Your task to perform on an android device: Search for the best rated drill on Lowes.com Image 0: 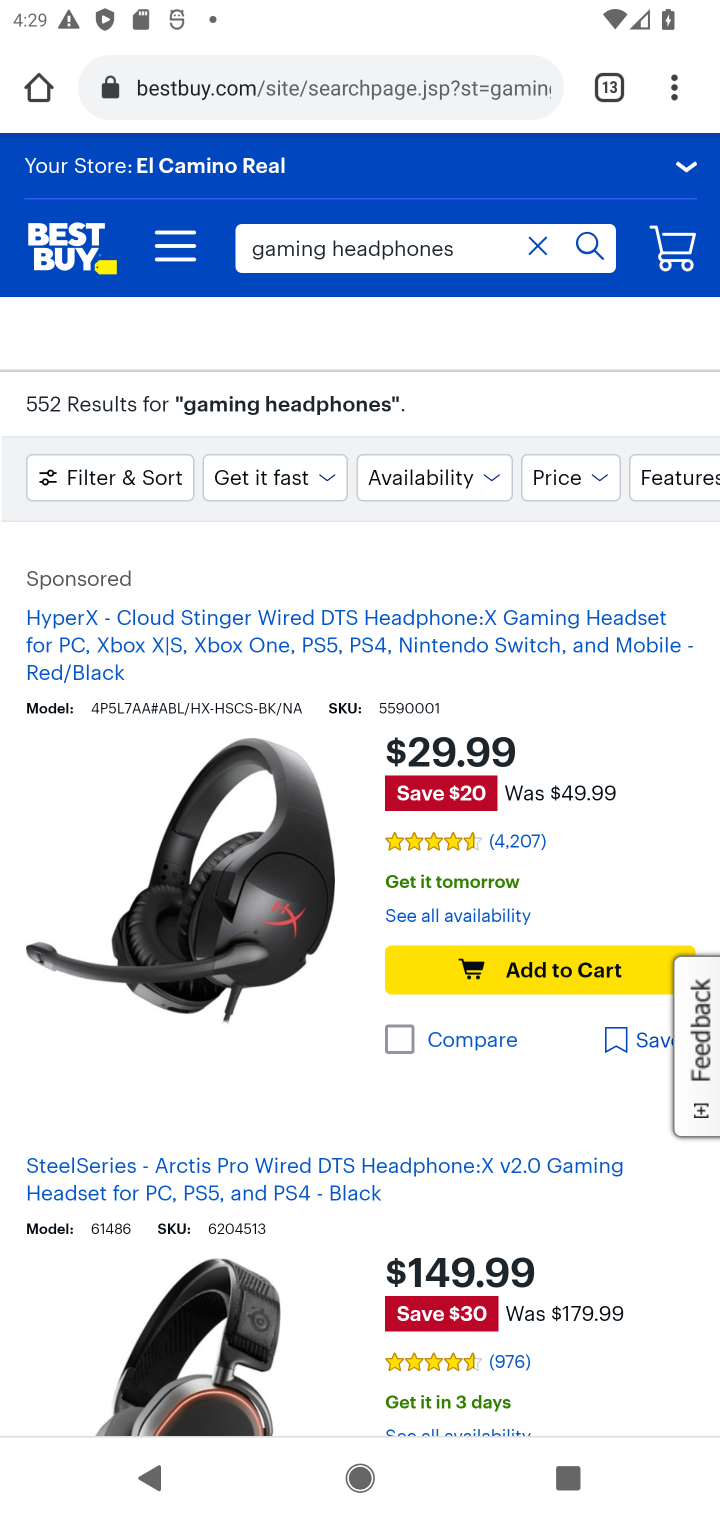
Step 0: press home button
Your task to perform on an android device: Search for the best rated drill on Lowes.com Image 1: 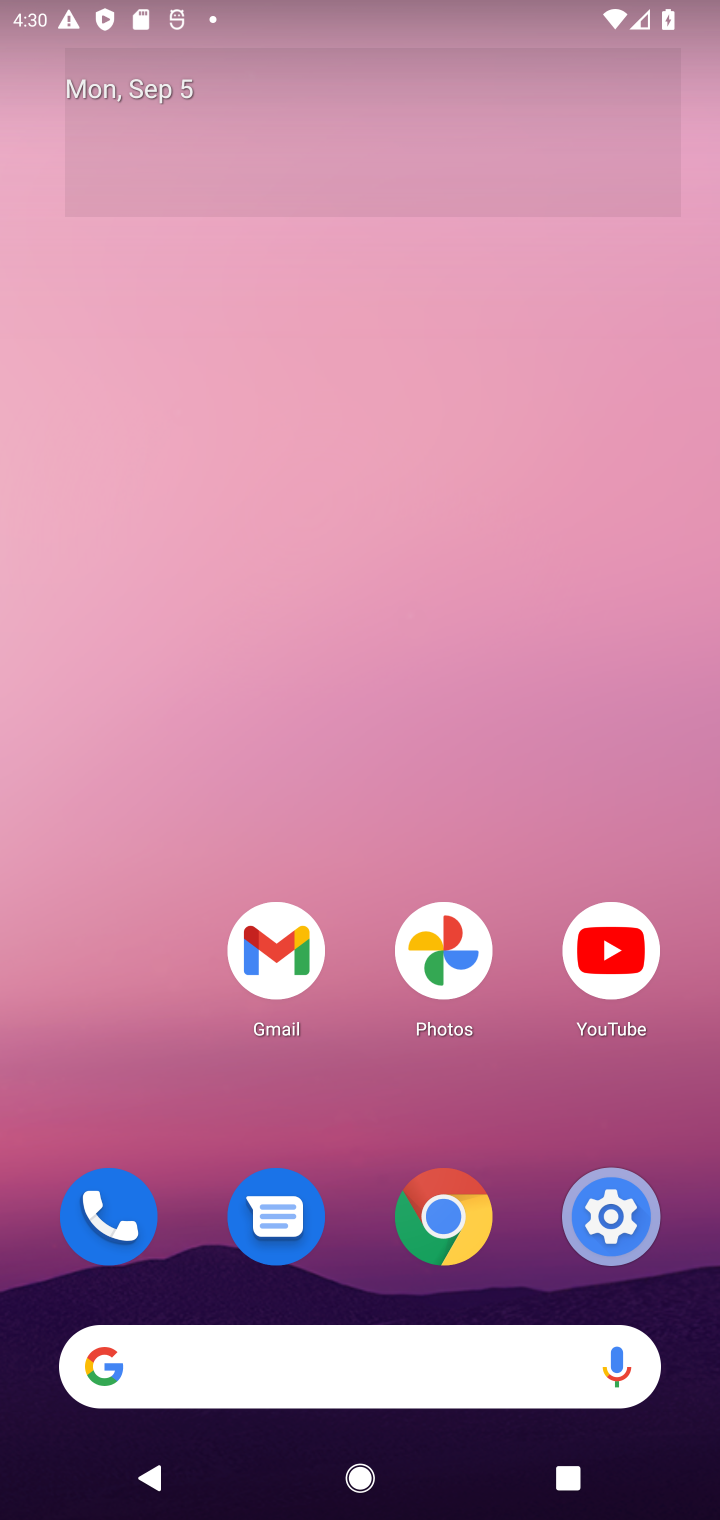
Step 1: click (90, 1370)
Your task to perform on an android device: Search for the best rated drill on Lowes.com Image 2: 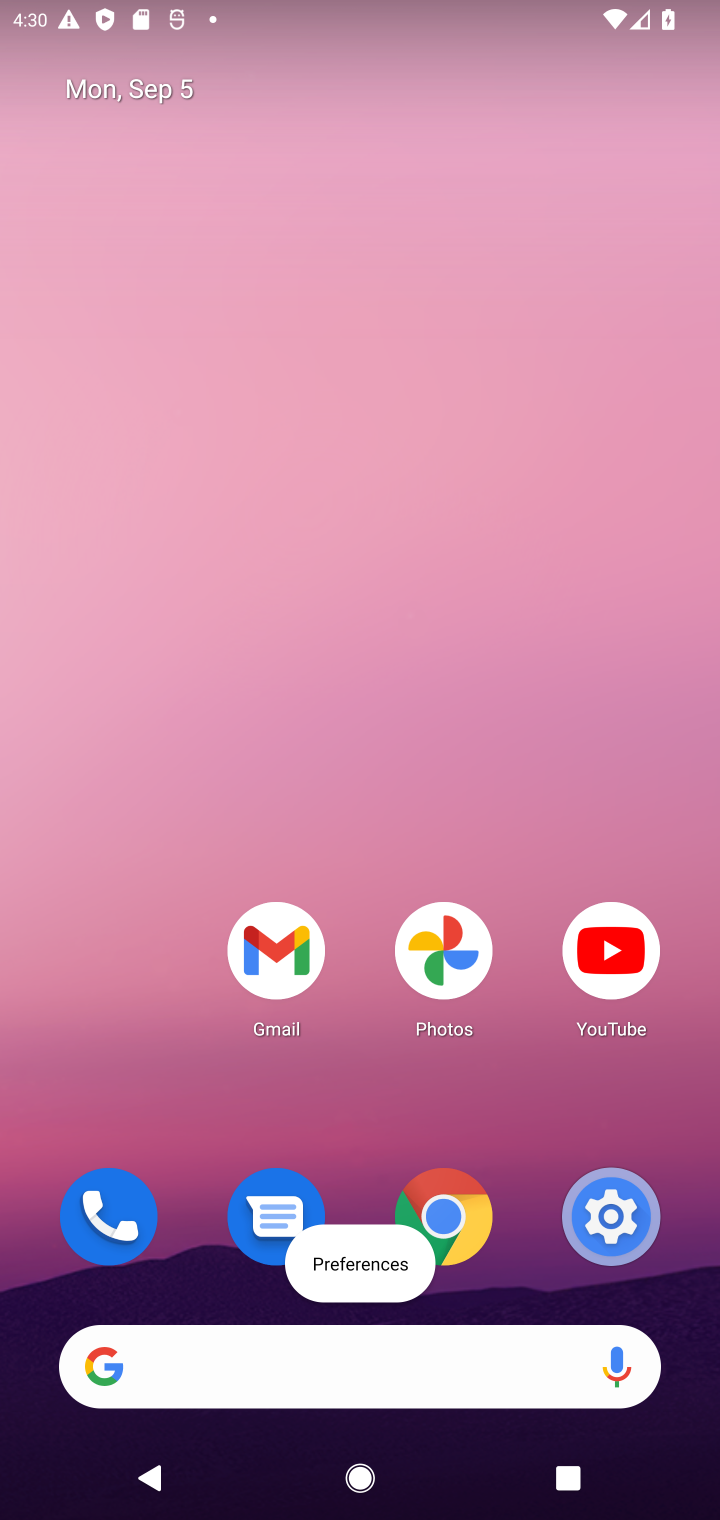
Step 2: click (90, 1370)
Your task to perform on an android device: Search for the best rated drill on Lowes.com Image 3: 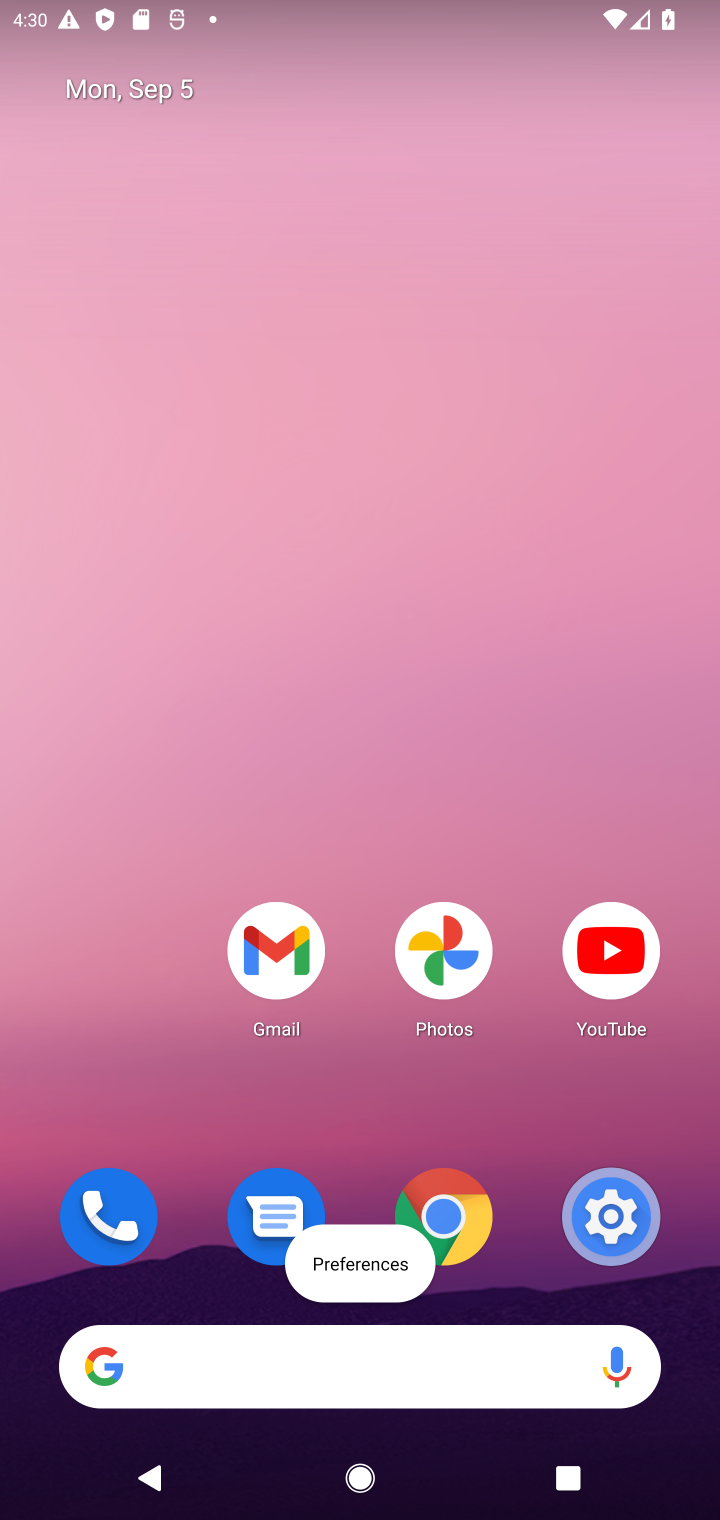
Step 3: click (105, 1375)
Your task to perform on an android device: Search for the best rated drill on Lowes.com Image 4: 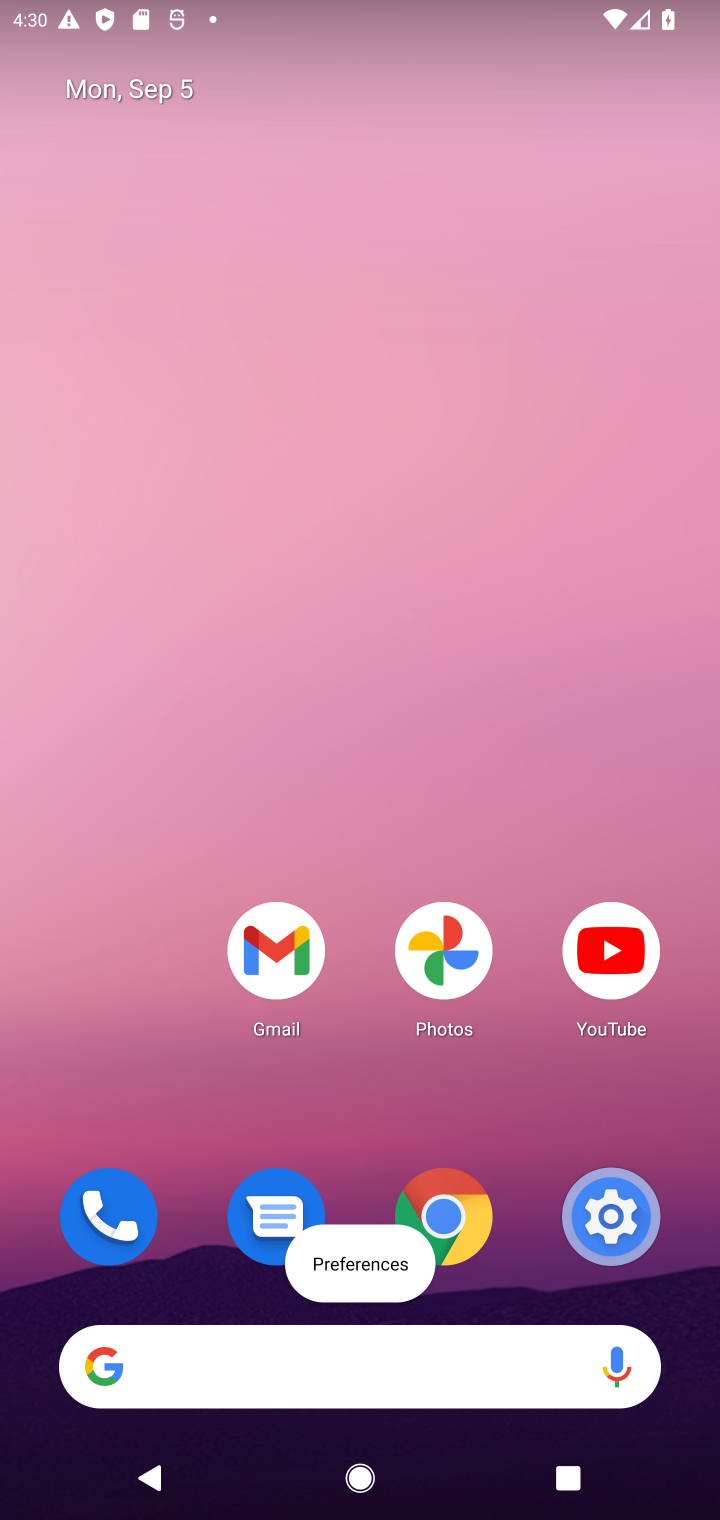
Step 4: click (105, 1375)
Your task to perform on an android device: Search for the best rated drill on Lowes.com Image 5: 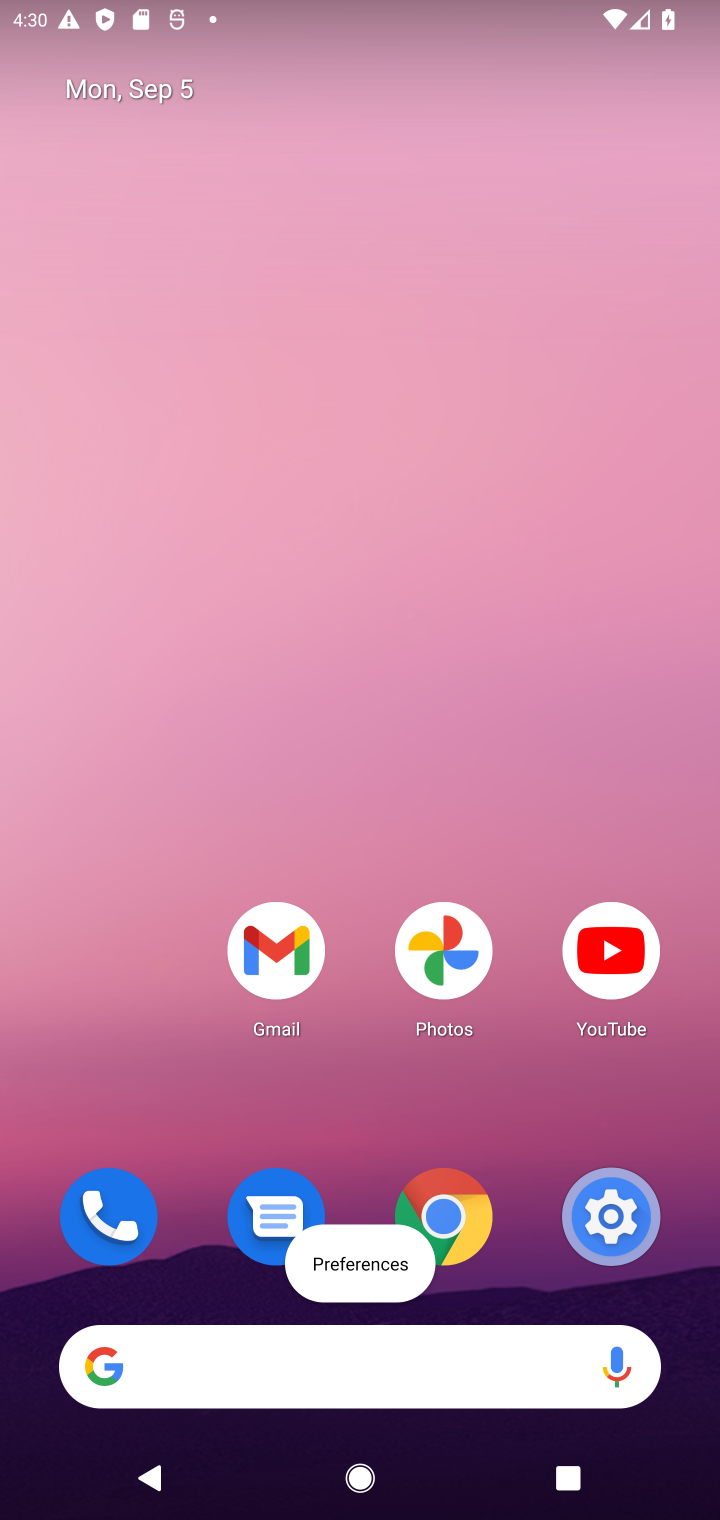
Step 5: click (105, 1375)
Your task to perform on an android device: Search for the best rated drill on Lowes.com Image 6: 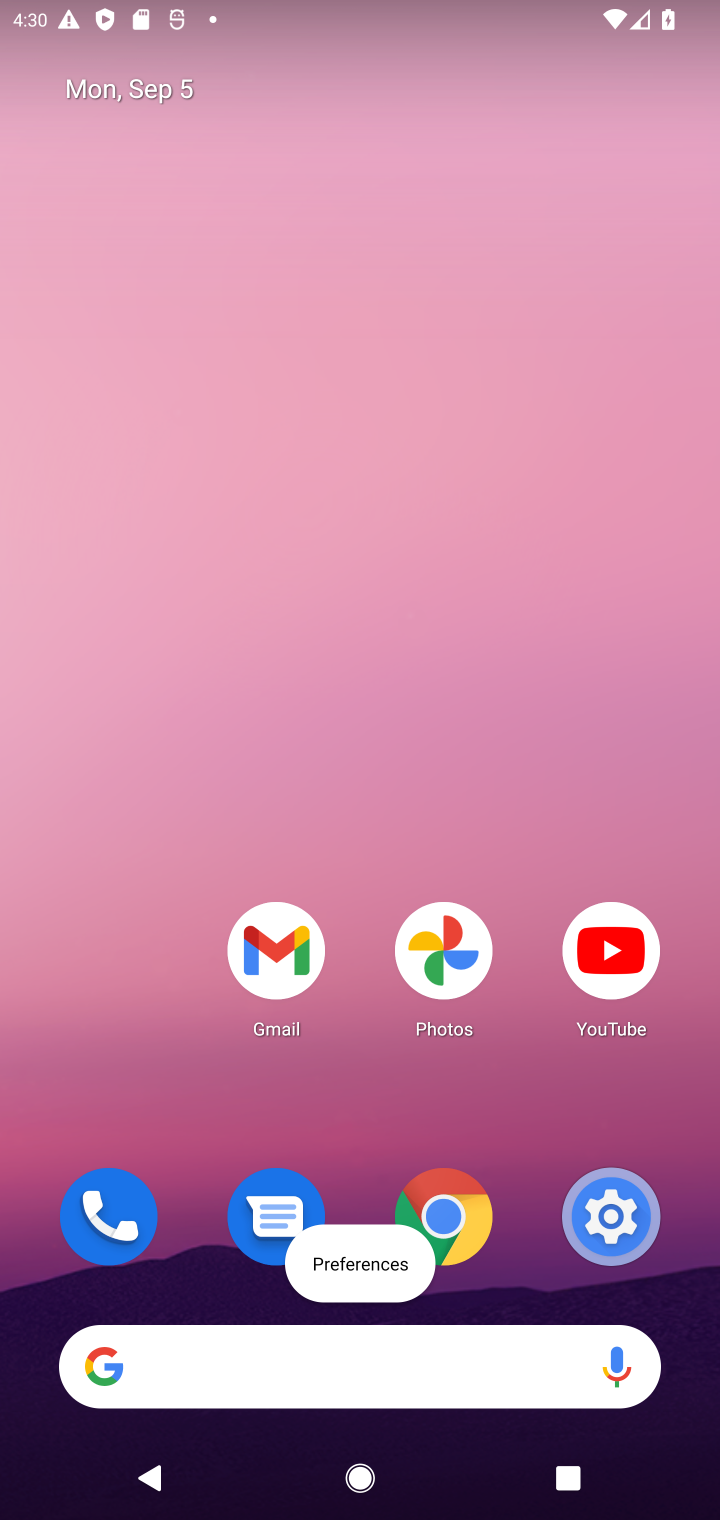
Step 6: click (111, 1376)
Your task to perform on an android device: Search for the best rated drill on Lowes.com Image 7: 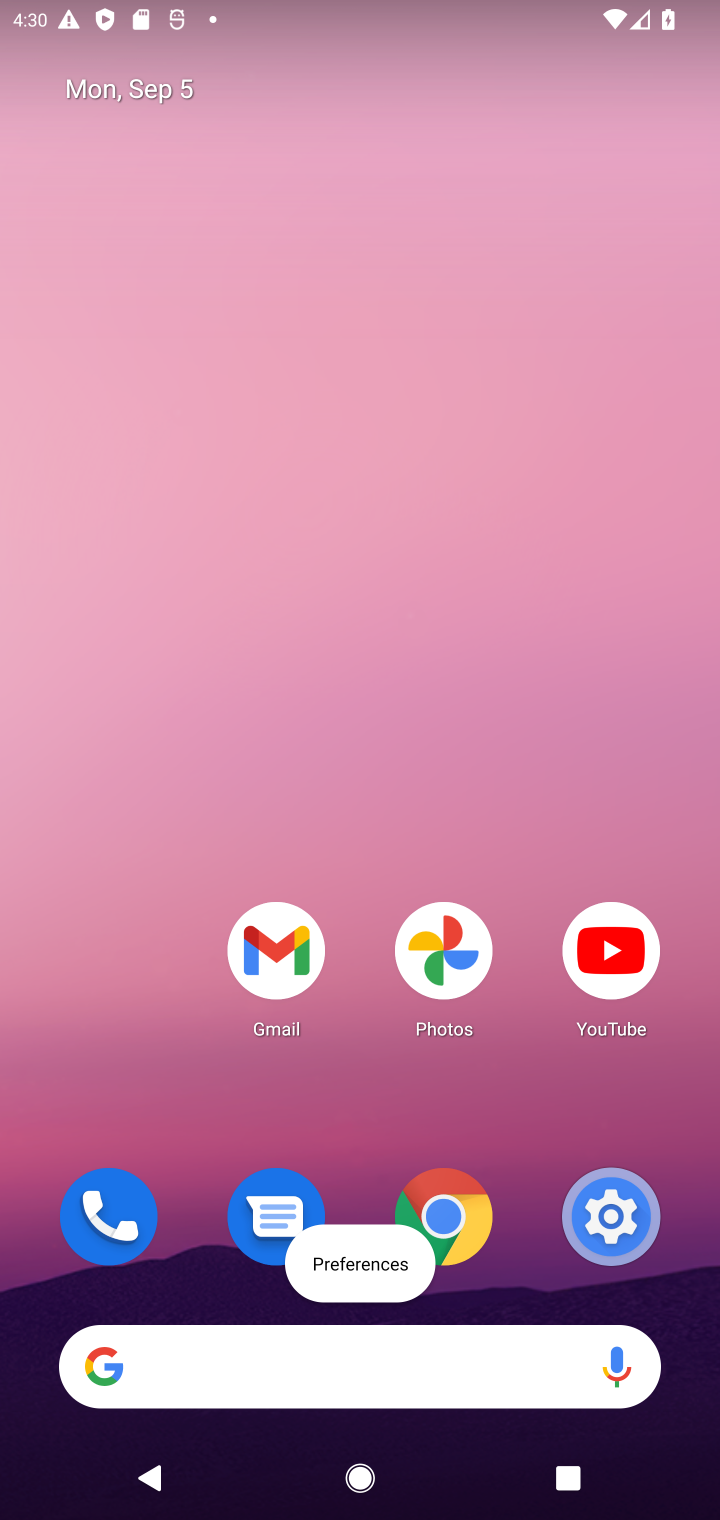
Step 7: click (95, 1361)
Your task to perform on an android device: Search for the best rated drill on Lowes.com Image 8: 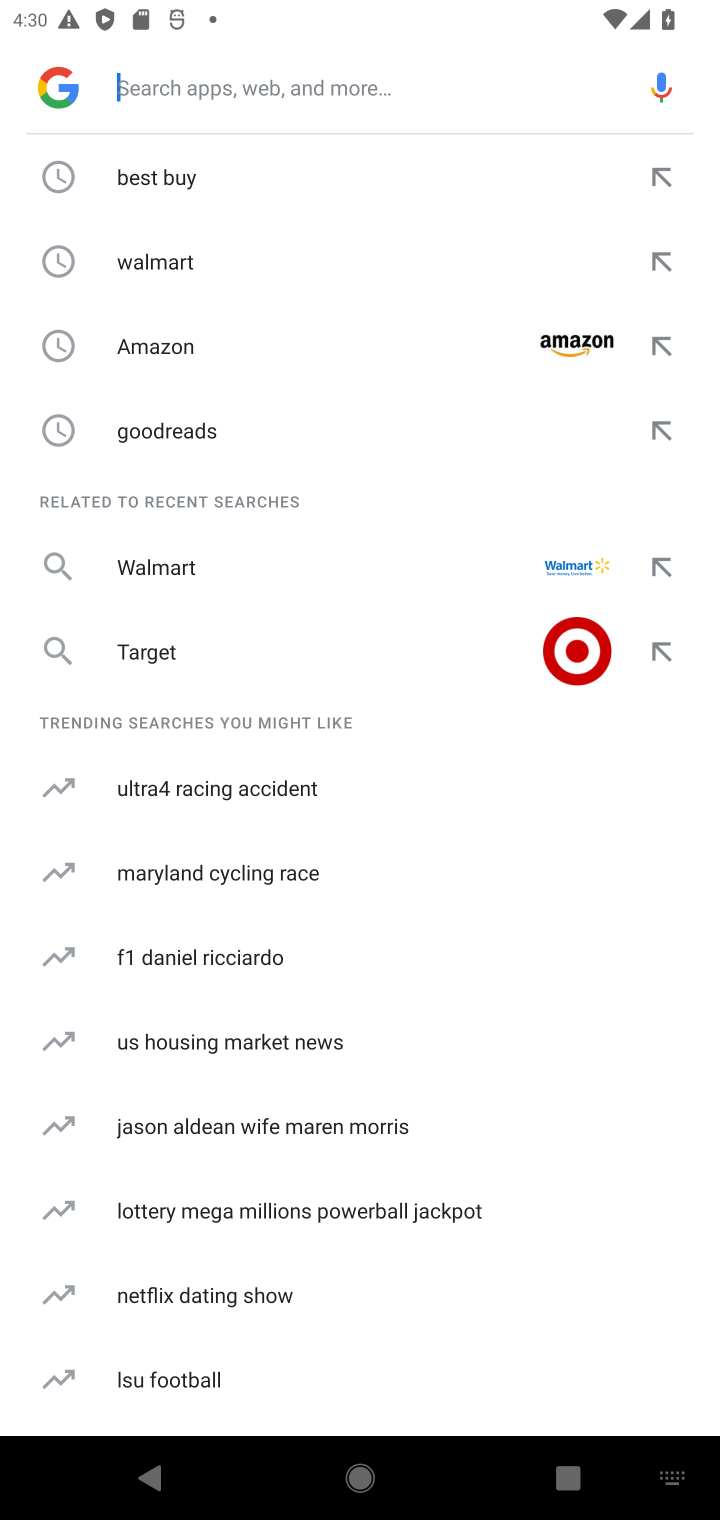
Step 8: type "Lowes.com"
Your task to perform on an android device: Search for the best rated drill on Lowes.com Image 9: 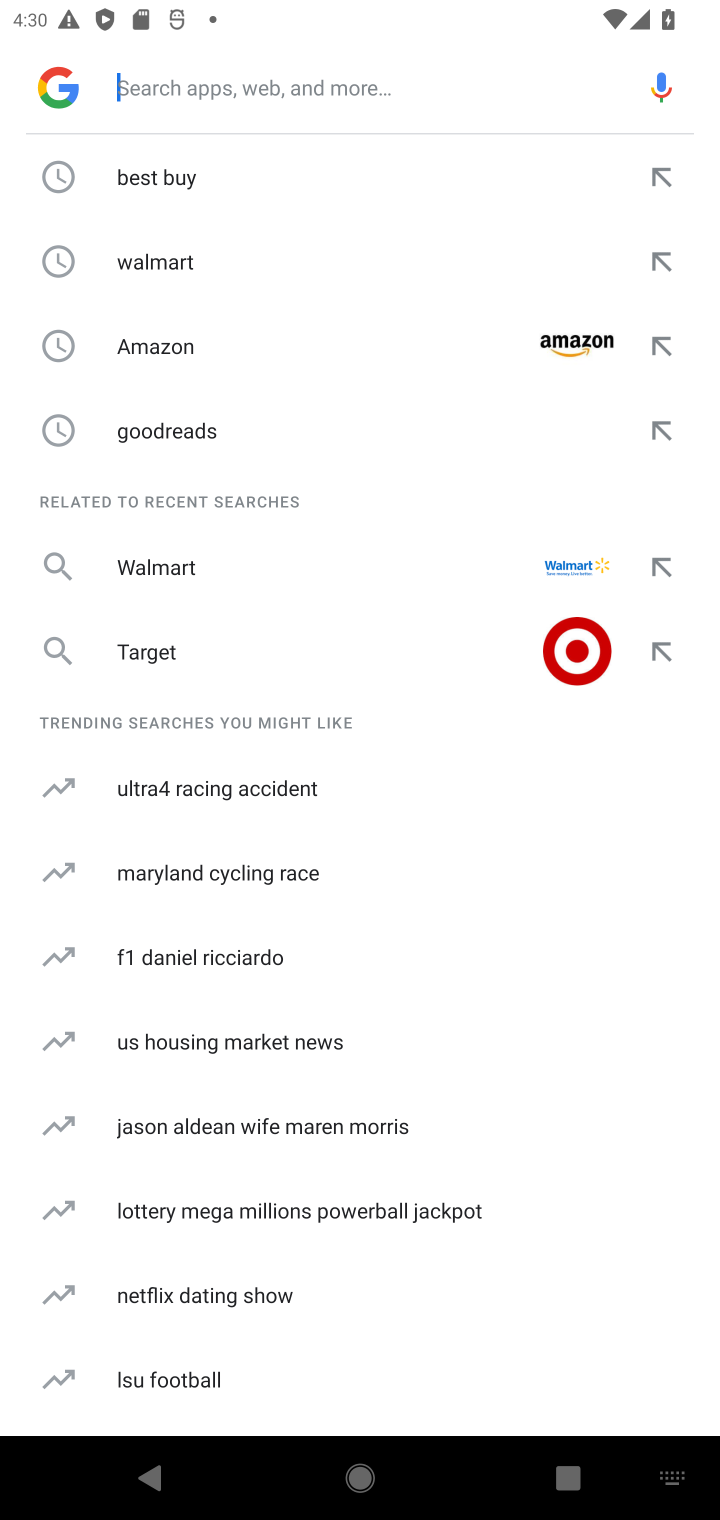
Step 9: click (191, 71)
Your task to perform on an android device: Search for the best rated drill on Lowes.com Image 10: 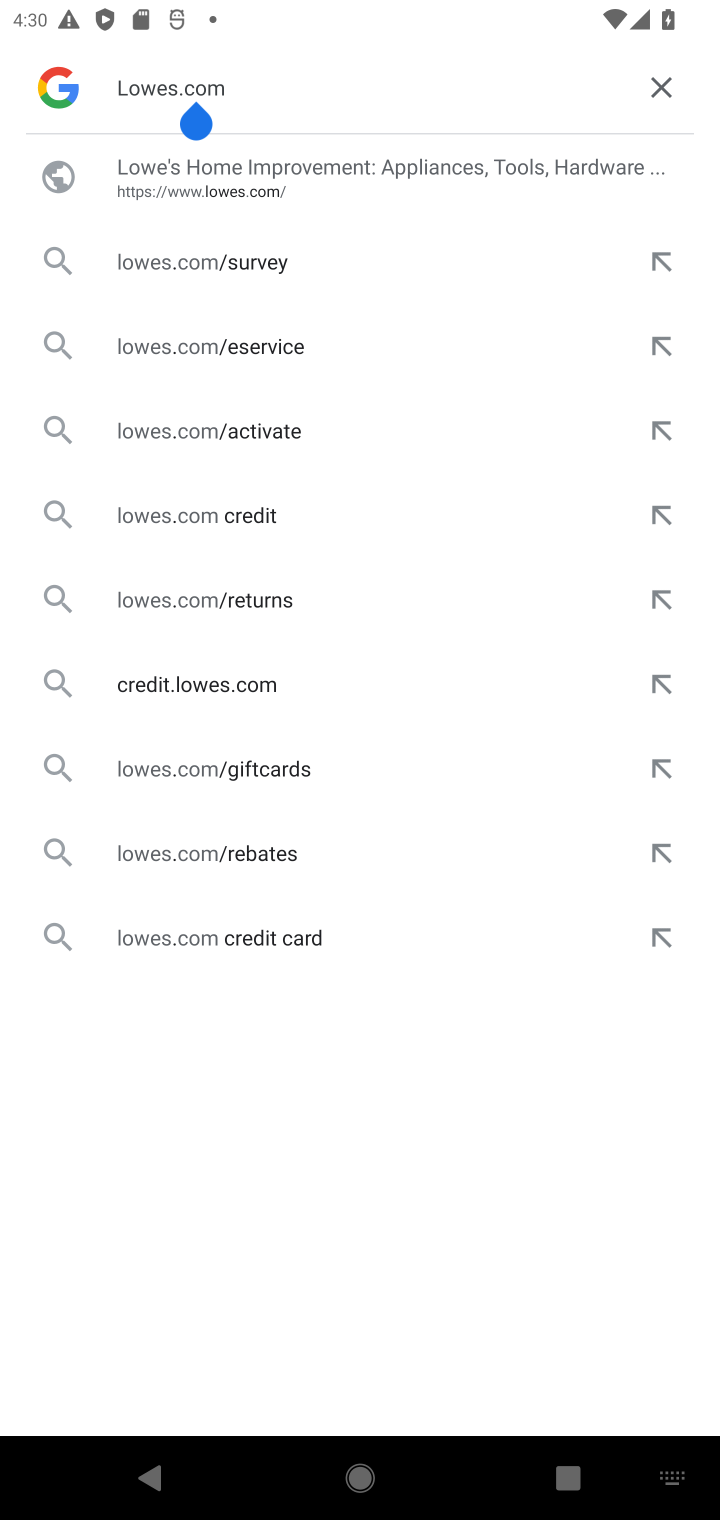
Step 10: press enter
Your task to perform on an android device: Search for the best rated drill on Lowes.com Image 11: 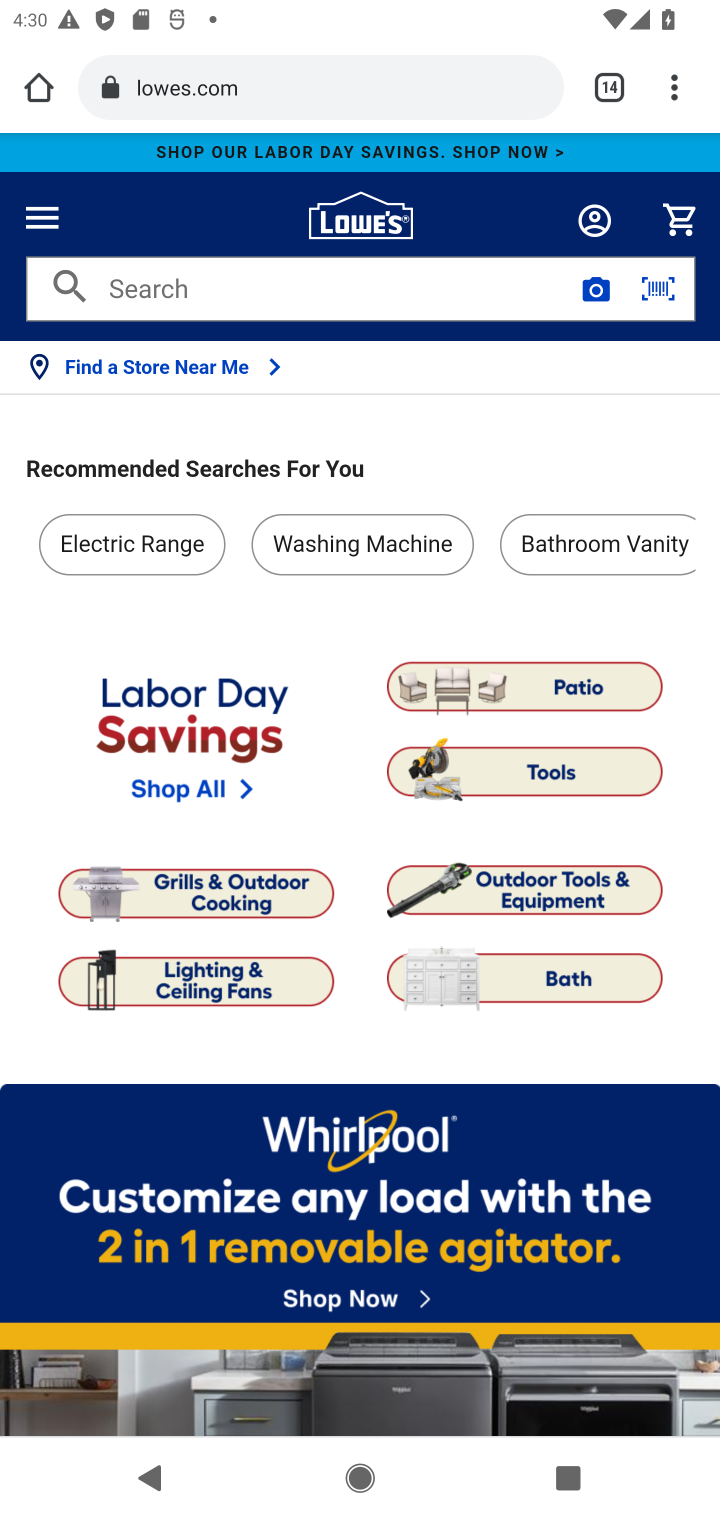
Step 11: click (220, 280)
Your task to perform on an android device: Search for the best rated drill on Lowes.com Image 12: 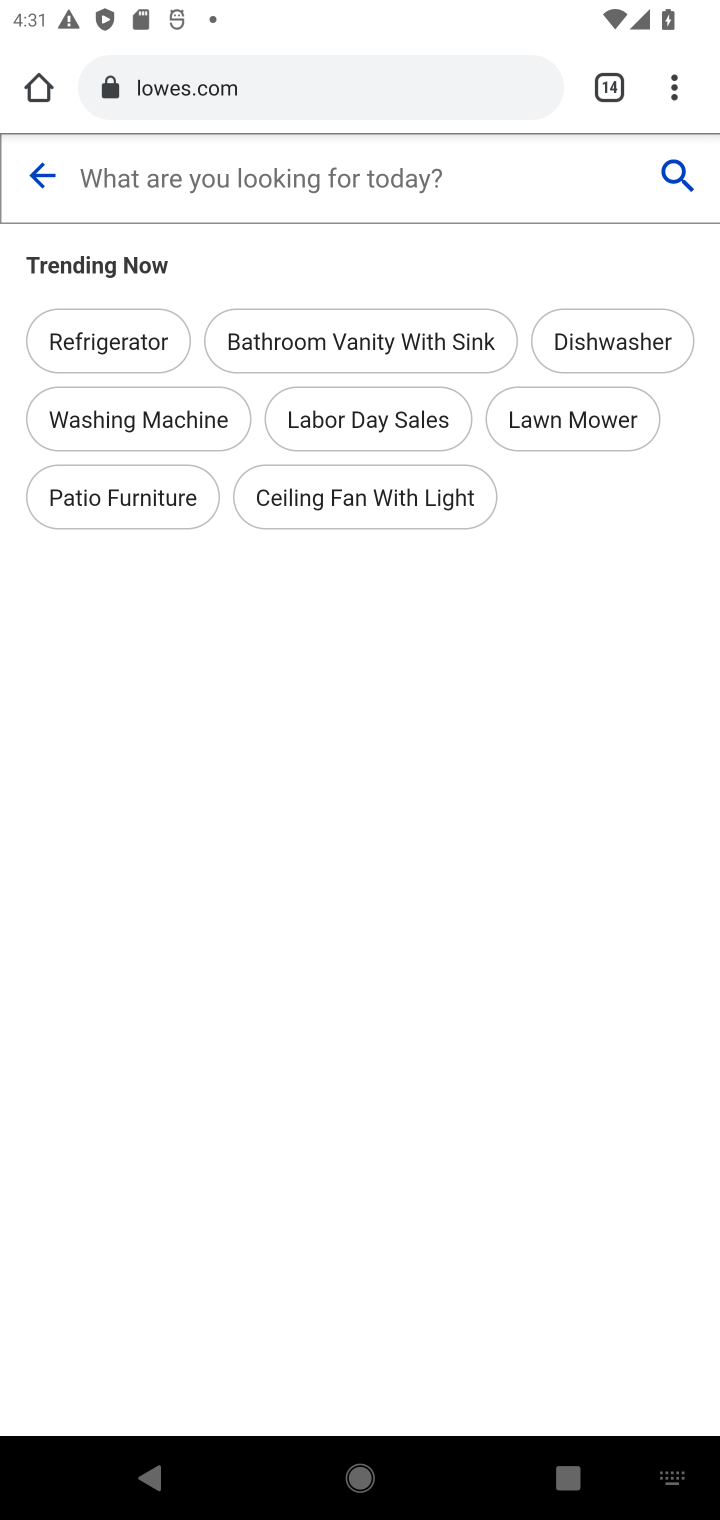
Step 12: type "drill "
Your task to perform on an android device: Search for the best rated drill on Lowes.com Image 13: 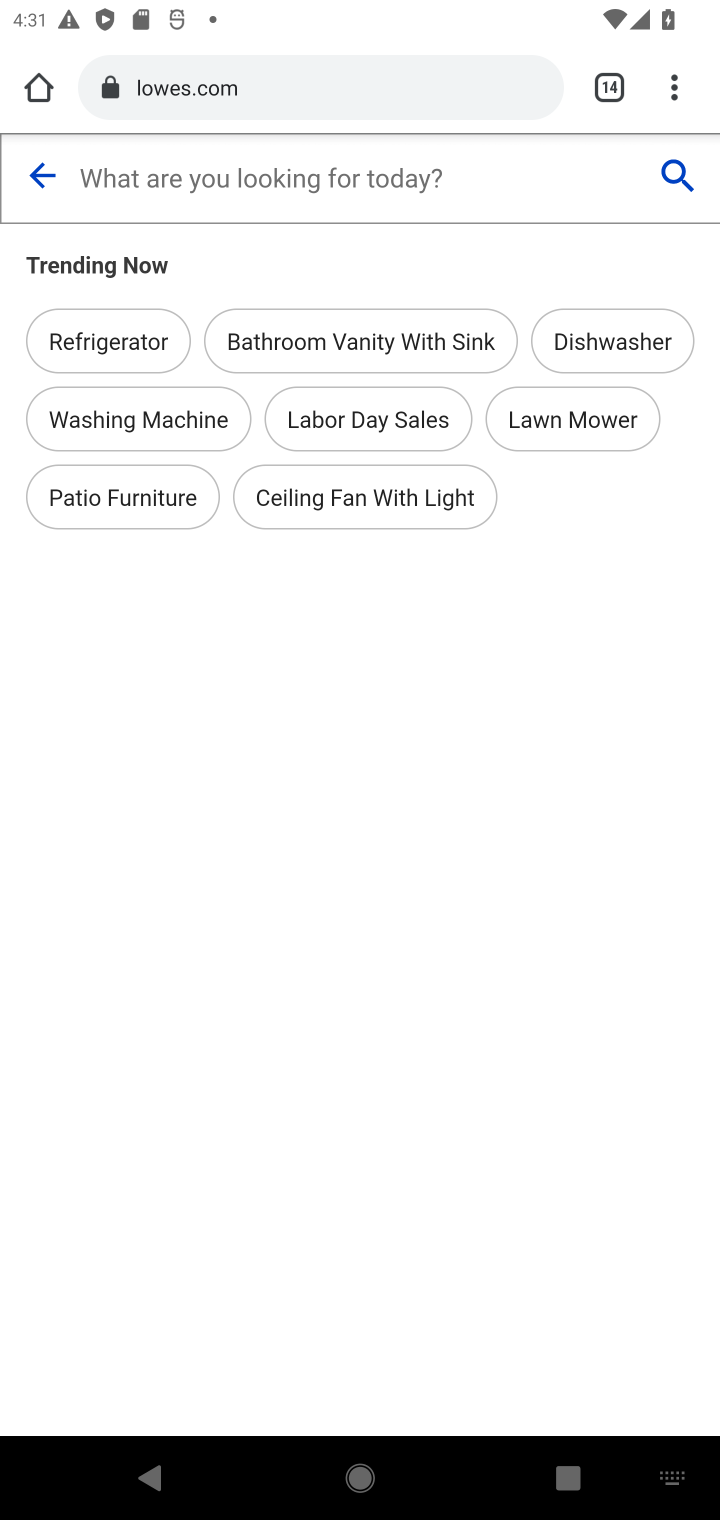
Step 13: click (234, 162)
Your task to perform on an android device: Search for the best rated drill on Lowes.com Image 14: 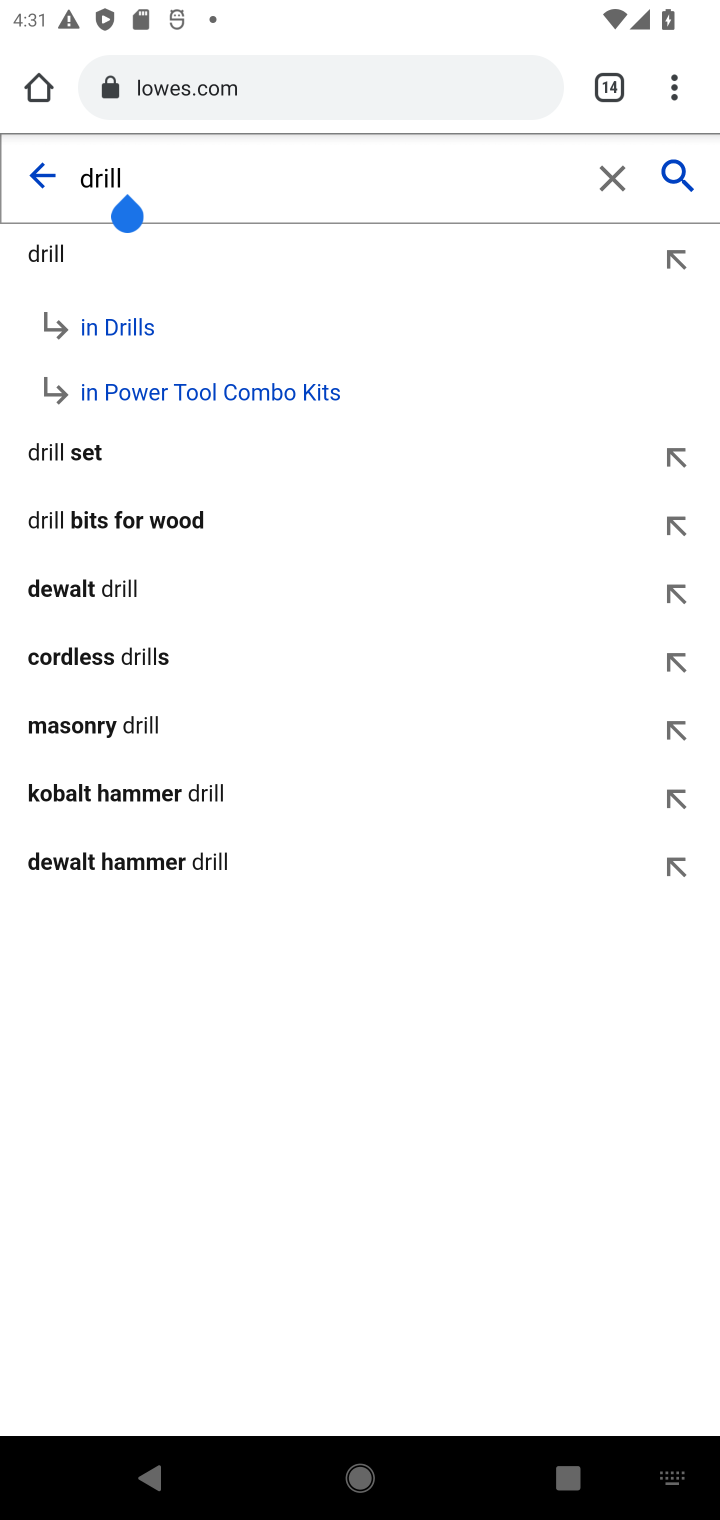
Step 14: press enter
Your task to perform on an android device: Search for the best rated drill on Lowes.com Image 15: 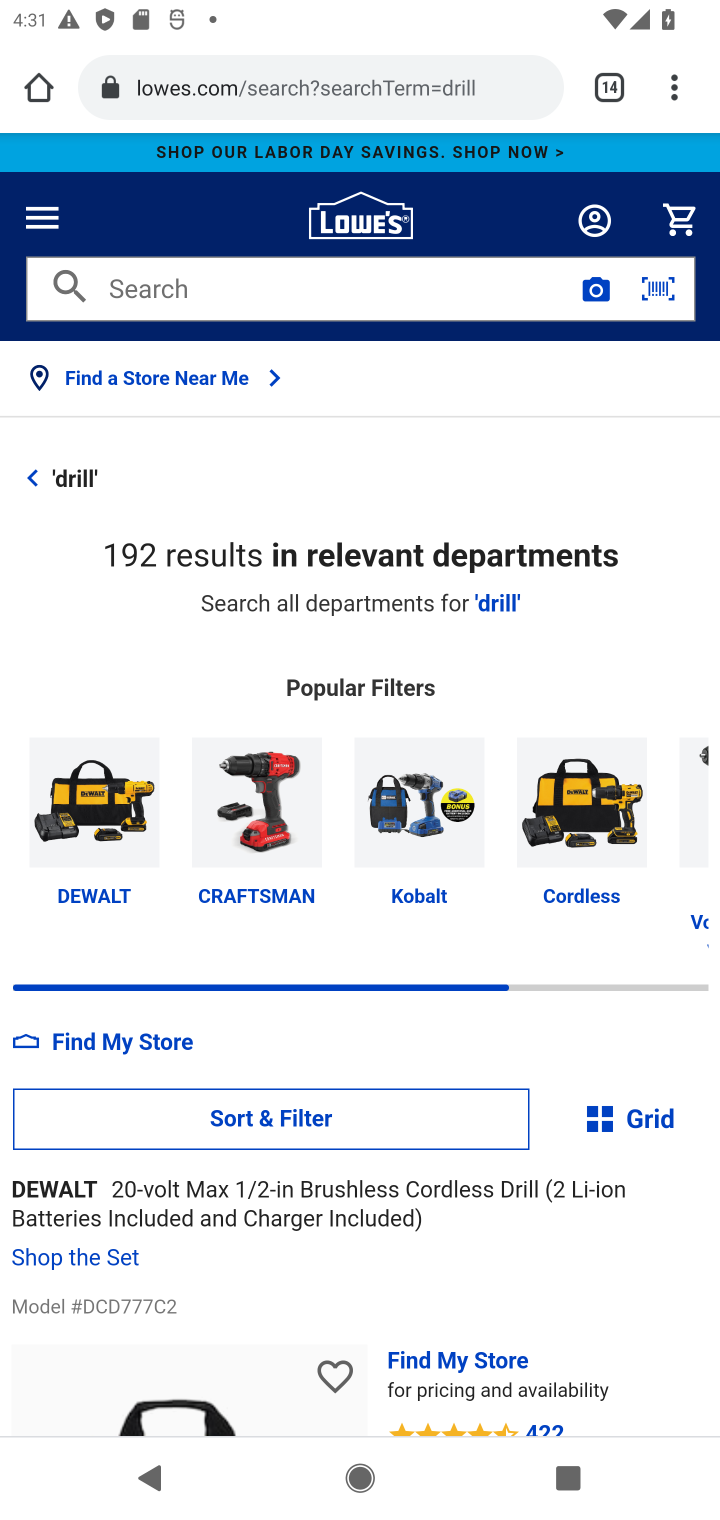
Step 15: click (261, 1109)
Your task to perform on an android device: Search for the best rated drill on Lowes.com Image 16: 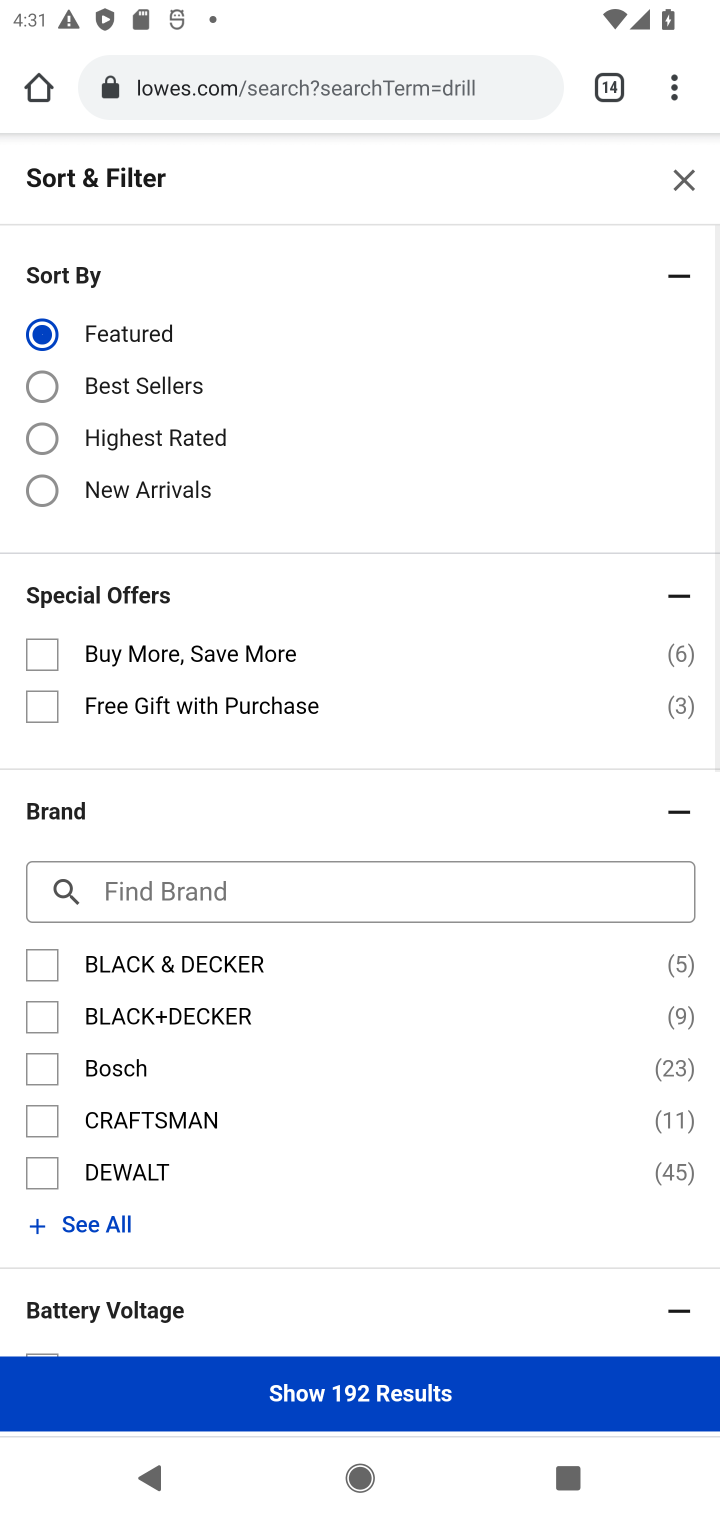
Step 16: click (35, 435)
Your task to perform on an android device: Search for the best rated drill on Lowes.com Image 17: 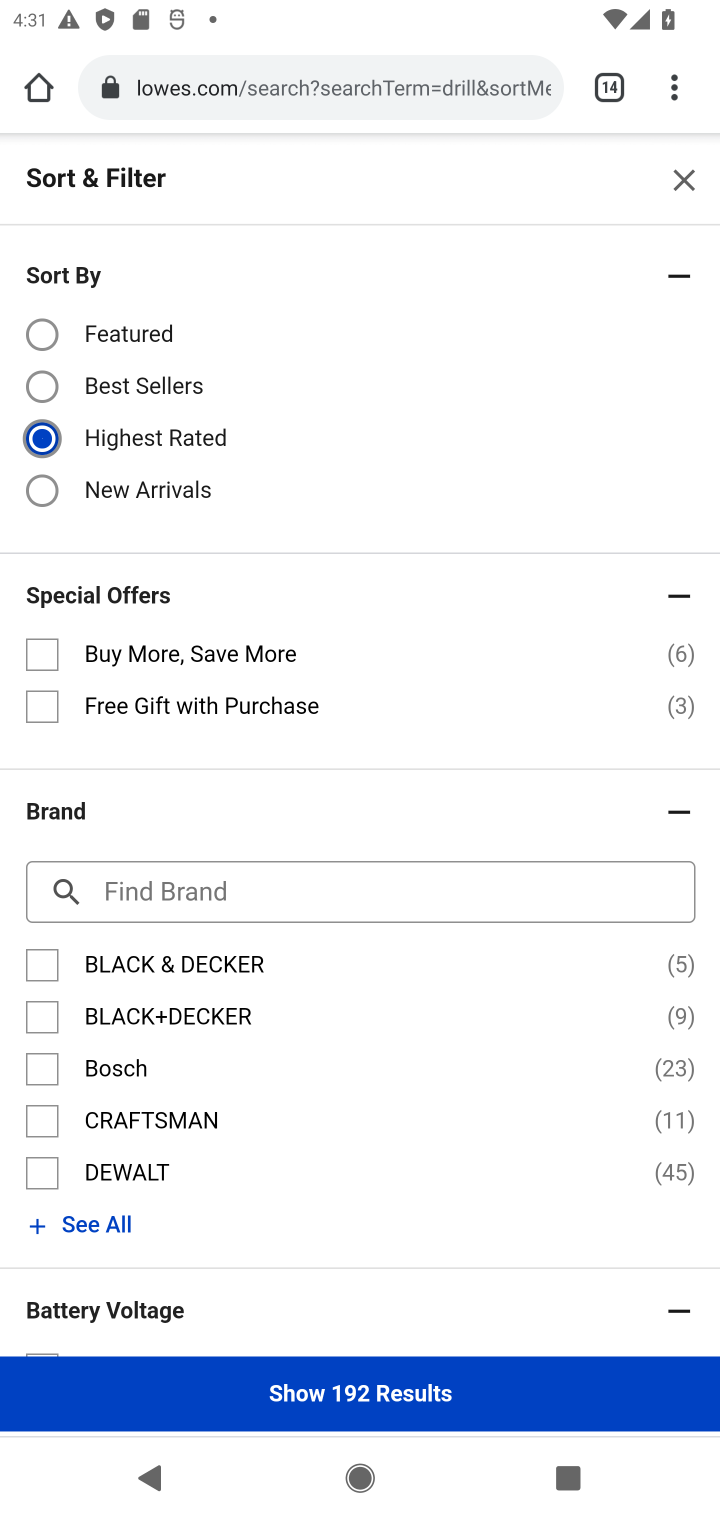
Step 17: click (461, 1394)
Your task to perform on an android device: Search for the best rated drill on Lowes.com Image 18: 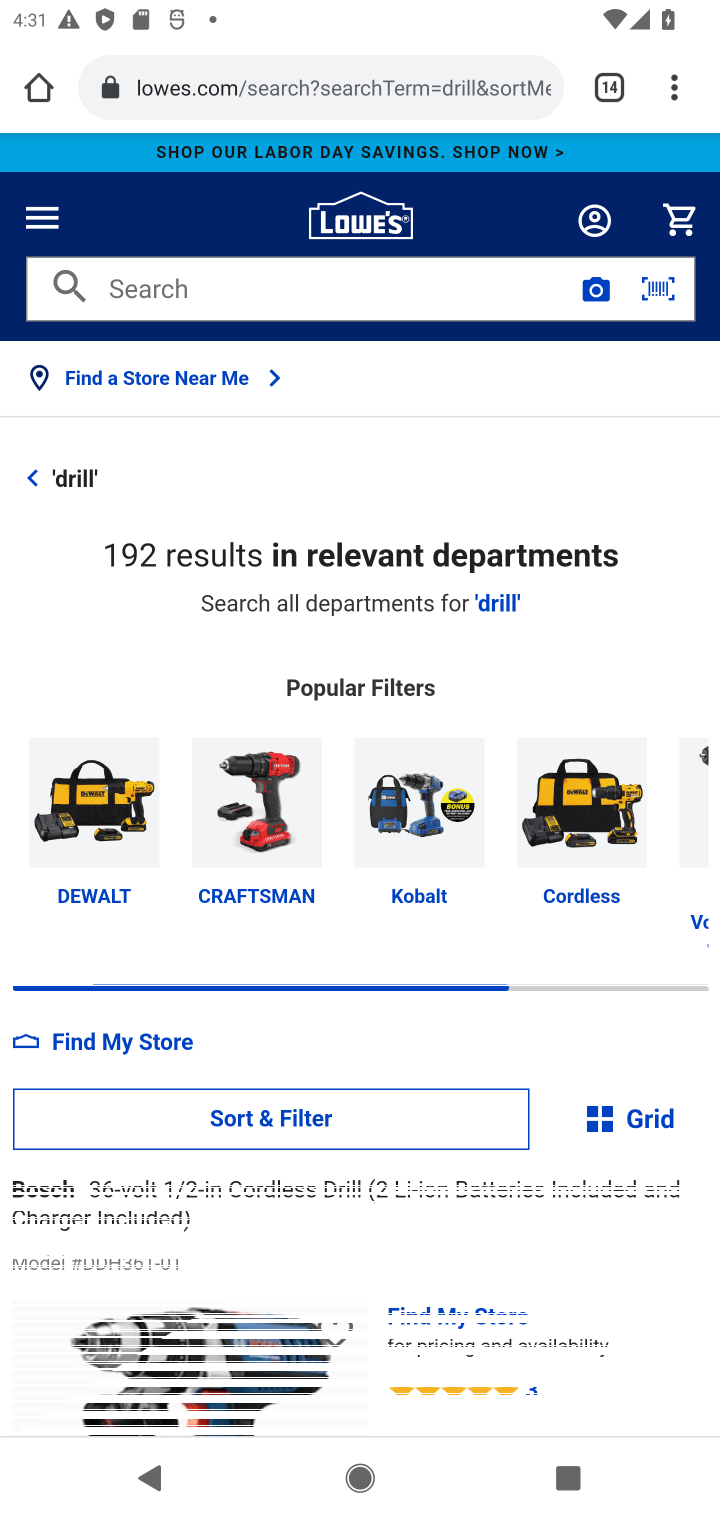
Step 18: task complete